Your task to perform on an android device: Open calendar and show me the first week of next month Image 0: 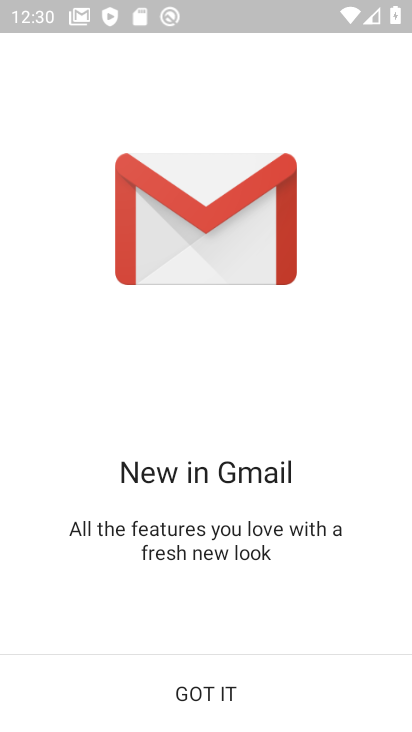
Step 0: press home button
Your task to perform on an android device: Open calendar and show me the first week of next month Image 1: 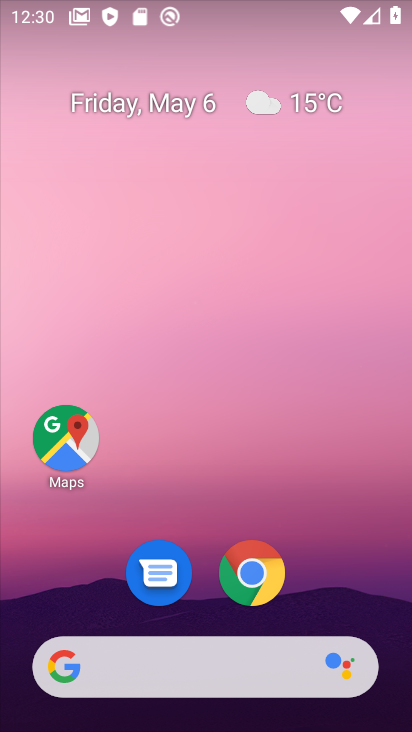
Step 1: drag from (230, 728) to (229, 347)
Your task to perform on an android device: Open calendar and show me the first week of next month Image 2: 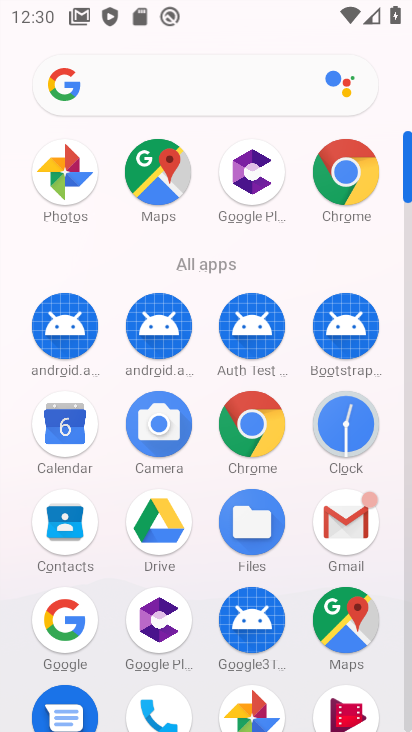
Step 2: click (63, 431)
Your task to perform on an android device: Open calendar and show me the first week of next month Image 3: 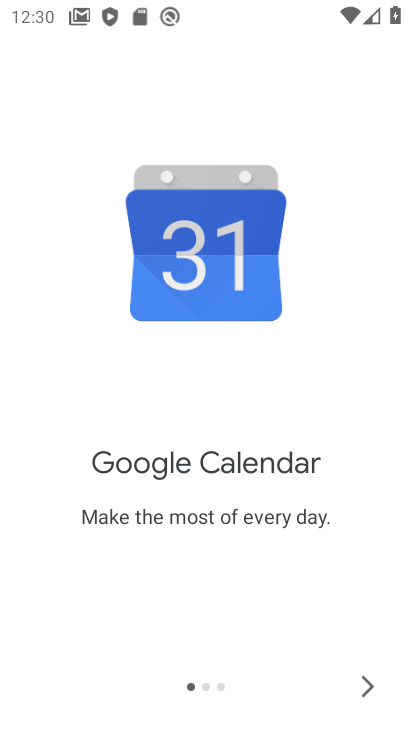
Step 3: click (359, 682)
Your task to perform on an android device: Open calendar and show me the first week of next month Image 4: 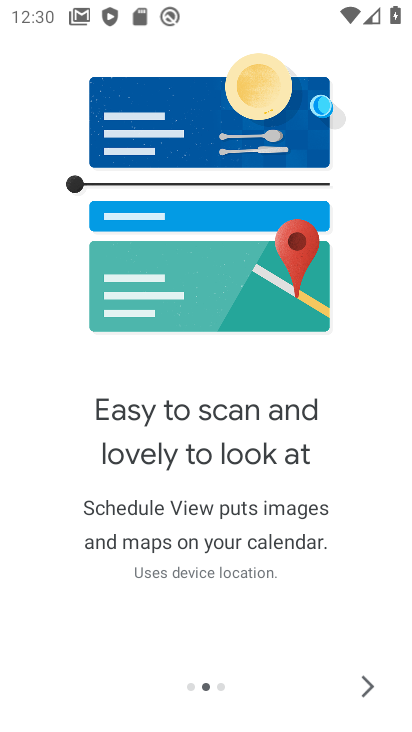
Step 4: click (359, 682)
Your task to perform on an android device: Open calendar and show me the first week of next month Image 5: 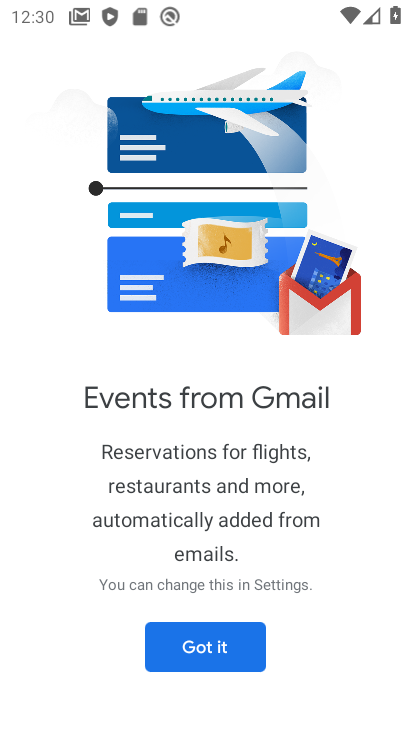
Step 5: click (212, 657)
Your task to perform on an android device: Open calendar and show me the first week of next month Image 6: 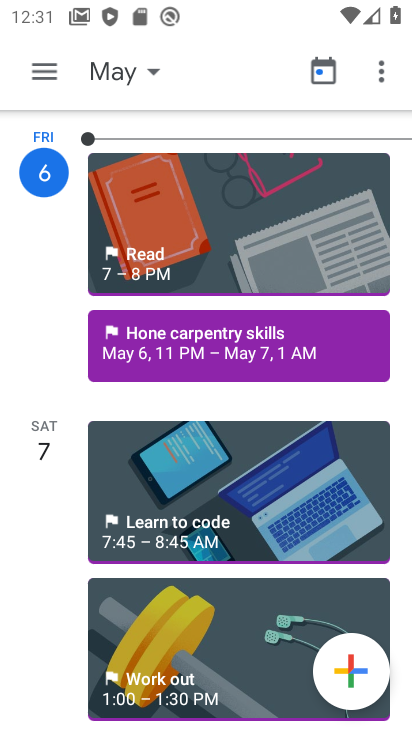
Step 6: click (99, 71)
Your task to perform on an android device: Open calendar and show me the first week of next month Image 7: 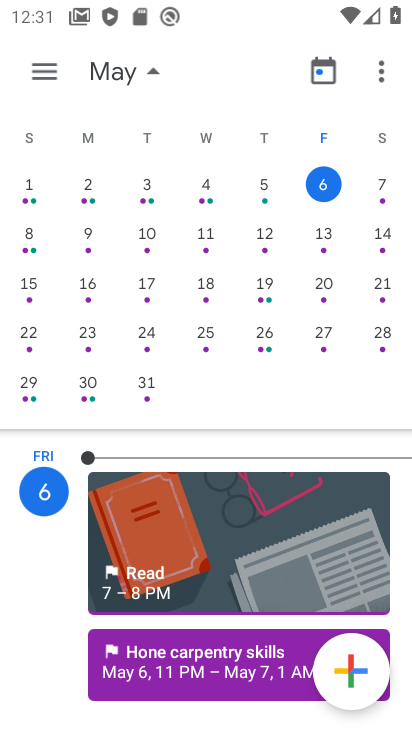
Step 7: drag from (337, 286) to (2, 245)
Your task to perform on an android device: Open calendar and show me the first week of next month Image 8: 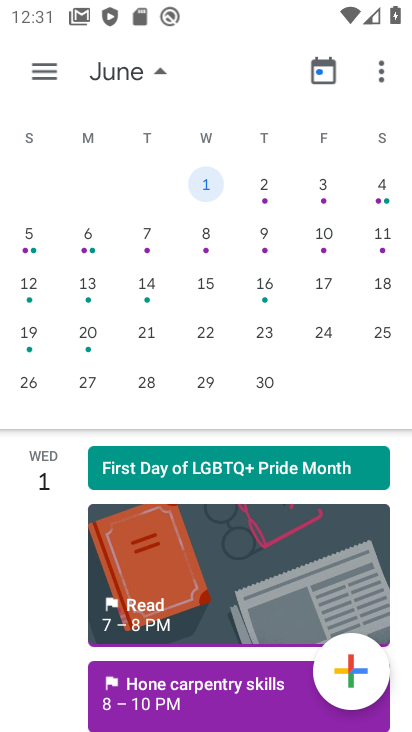
Step 8: click (87, 233)
Your task to perform on an android device: Open calendar and show me the first week of next month Image 9: 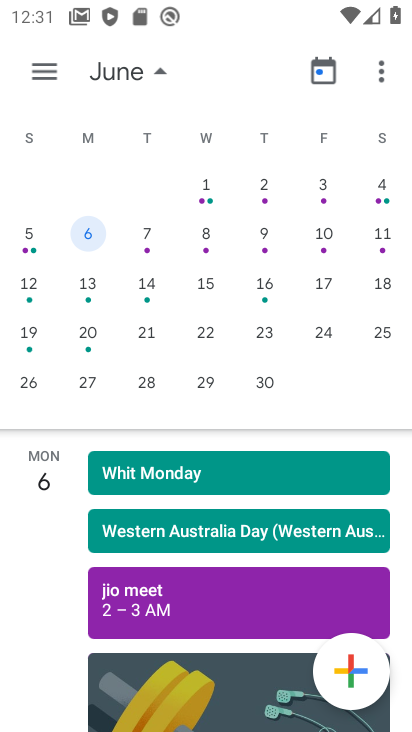
Step 9: task complete